Your task to perform on an android device: Go to Wikipedia Image 0: 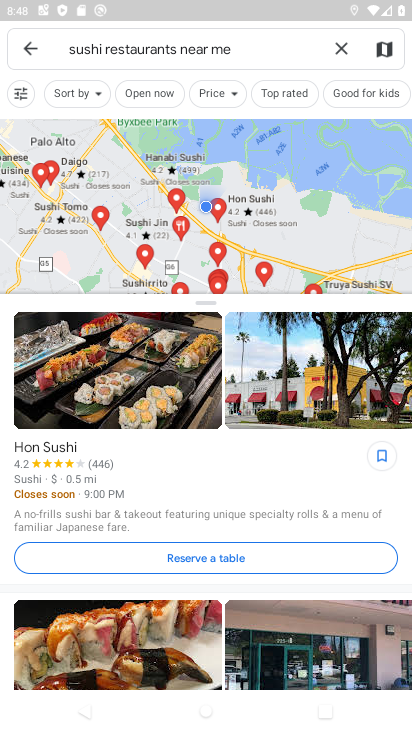
Step 0: press home button
Your task to perform on an android device: Go to Wikipedia Image 1: 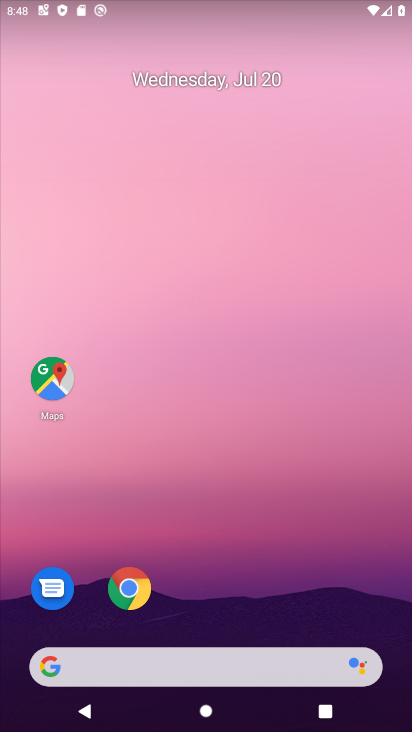
Step 1: click (130, 593)
Your task to perform on an android device: Go to Wikipedia Image 2: 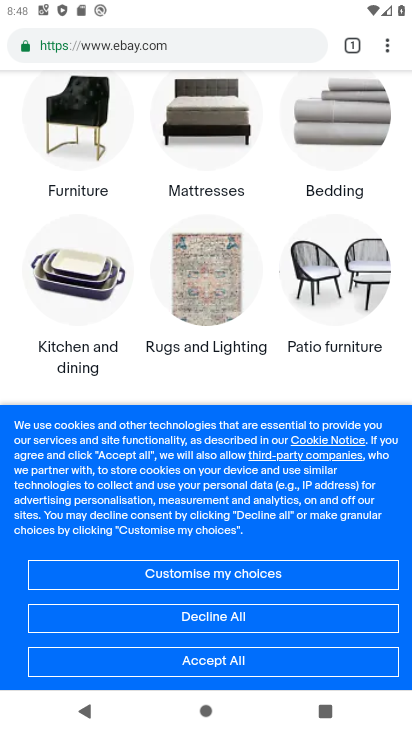
Step 2: click (350, 59)
Your task to perform on an android device: Go to Wikipedia Image 3: 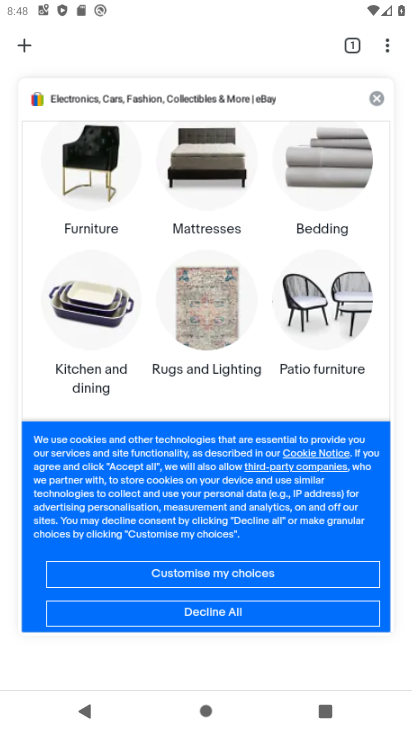
Step 3: click (31, 53)
Your task to perform on an android device: Go to Wikipedia Image 4: 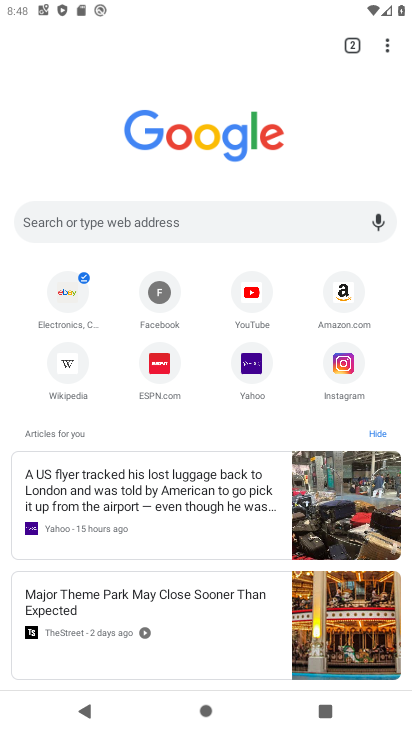
Step 4: click (56, 375)
Your task to perform on an android device: Go to Wikipedia Image 5: 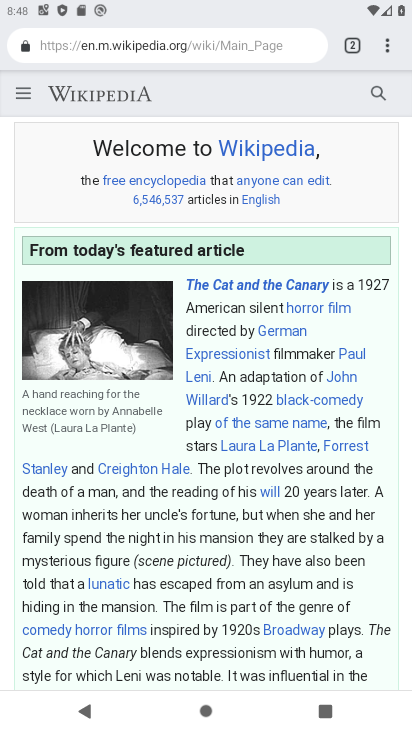
Step 5: task complete